Your task to perform on an android device: Show me the alarms in the clock app Image 0: 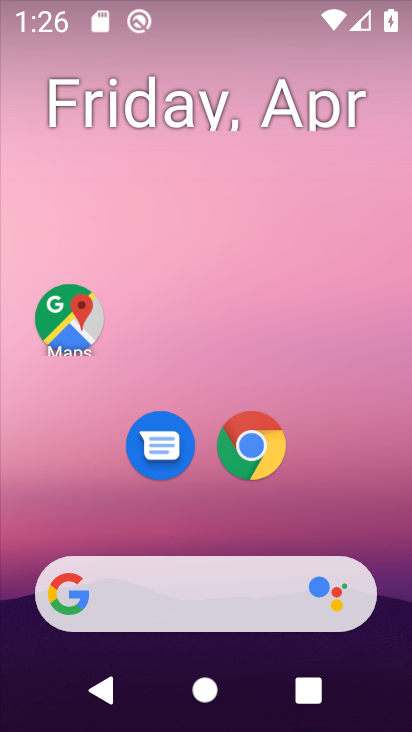
Step 0: drag from (363, 515) to (351, 160)
Your task to perform on an android device: Show me the alarms in the clock app Image 1: 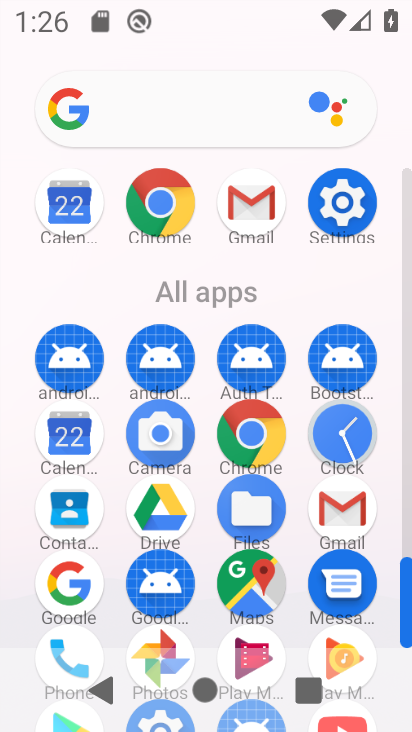
Step 1: click (352, 428)
Your task to perform on an android device: Show me the alarms in the clock app Image 2: 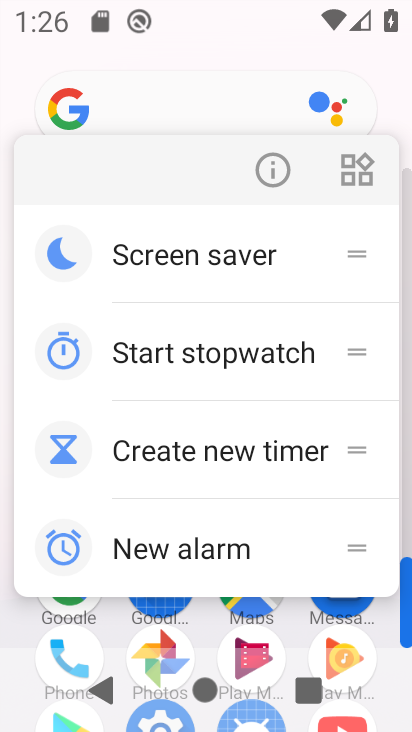
Step 2: click (410, 496)
Your task to perform on an android device: Show me the alarms in the clock app Image 3: 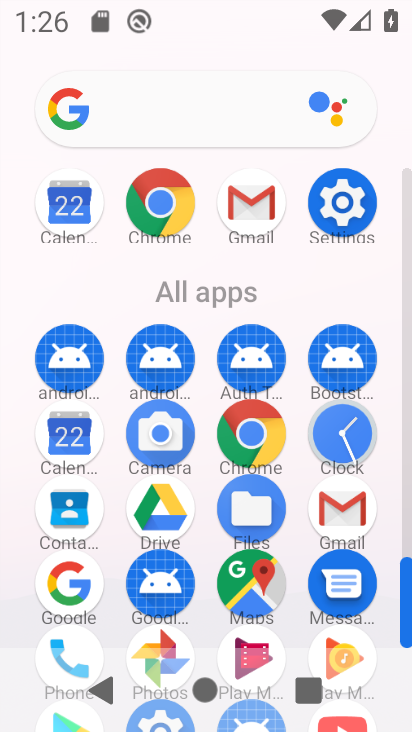
Step 3: click (332, 436)
Your task to perform on an android device: Show me the alarms in the clock app Image 4: 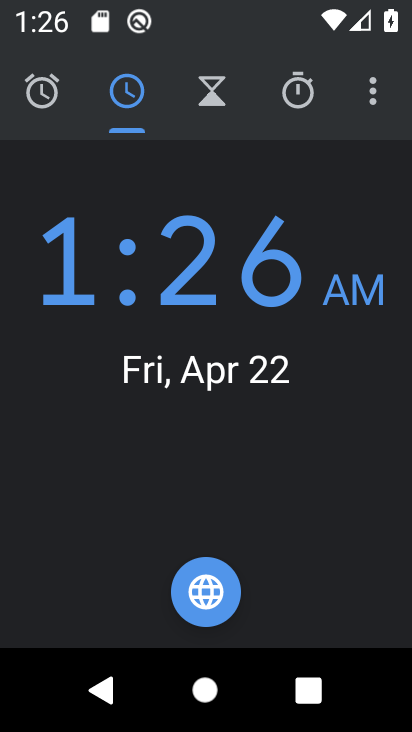
Step 4: click (43, 99)
Your task to perform on an android device: Show me the alarms in the clock app Image 5: 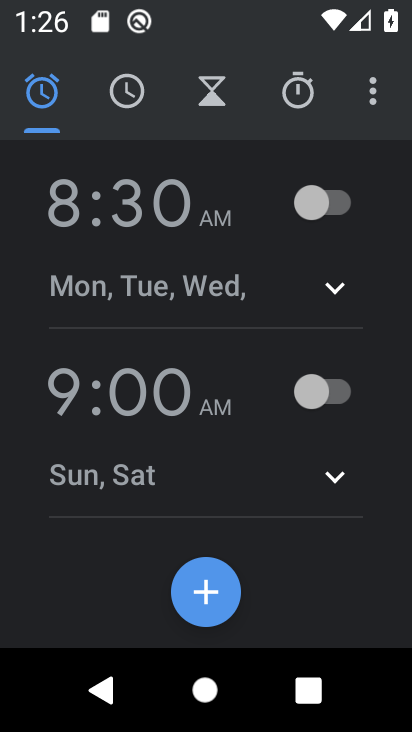
Step 5: task complete